Your task to perform on an android device: Open the calendar app, open the side menu, and click the "Day" option Image 0: 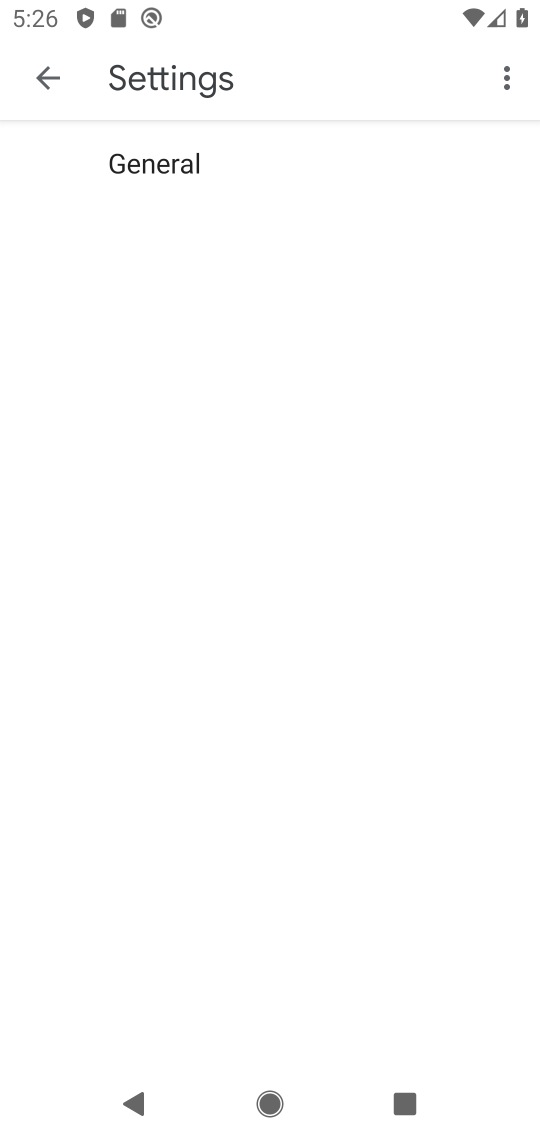
Step 0: press back button
Your task to perform on an android device: Open the calendar app, open the side menu, and click the "Day" option Image 1: 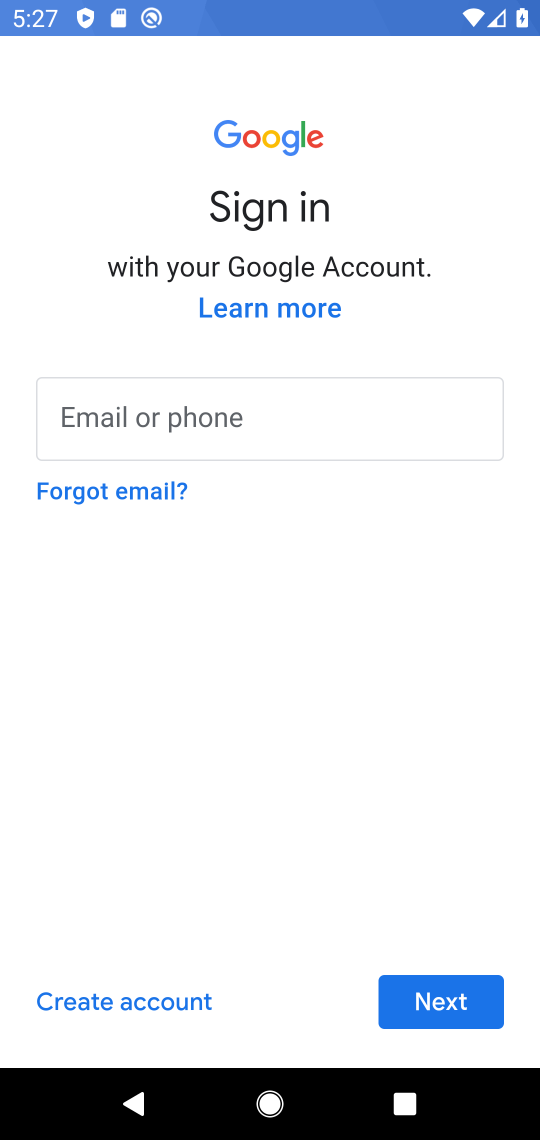
Step 1: press home button
Your task to perform on an android device: Open the calendar app, open the side menu, and click the "Day" option Image 2: 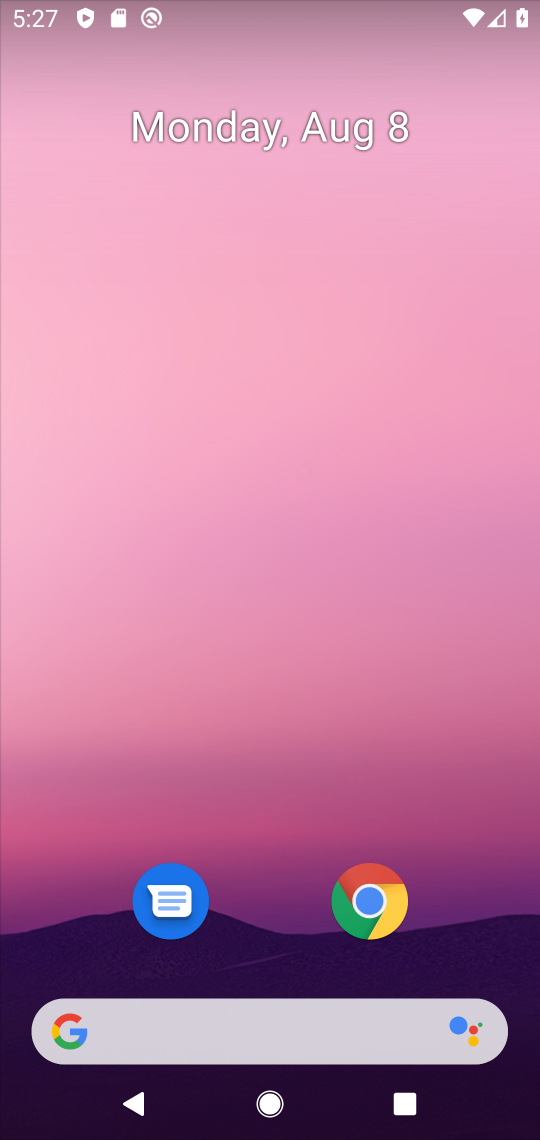
Step 2: drag from (461, 953) to (296, 18)
Your task to perform on an android device: Open the calendar app, open the side menu, and click the "Day" option Image 3: 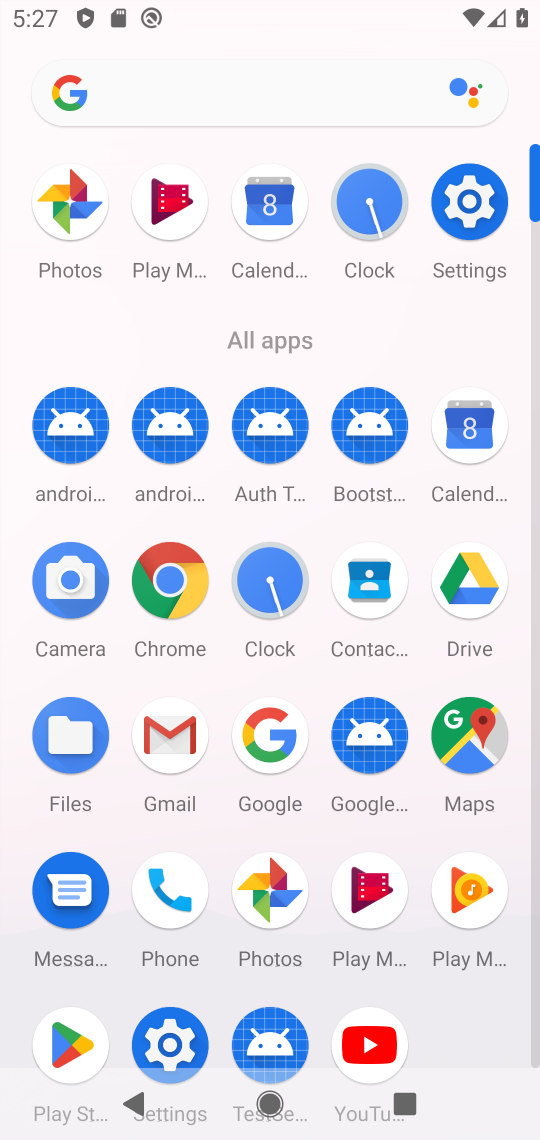
Step 3: click (257, 213)
Your task to perform on an android device: Open the calendar app, open the side menu, and click the "Day" option Image 4: 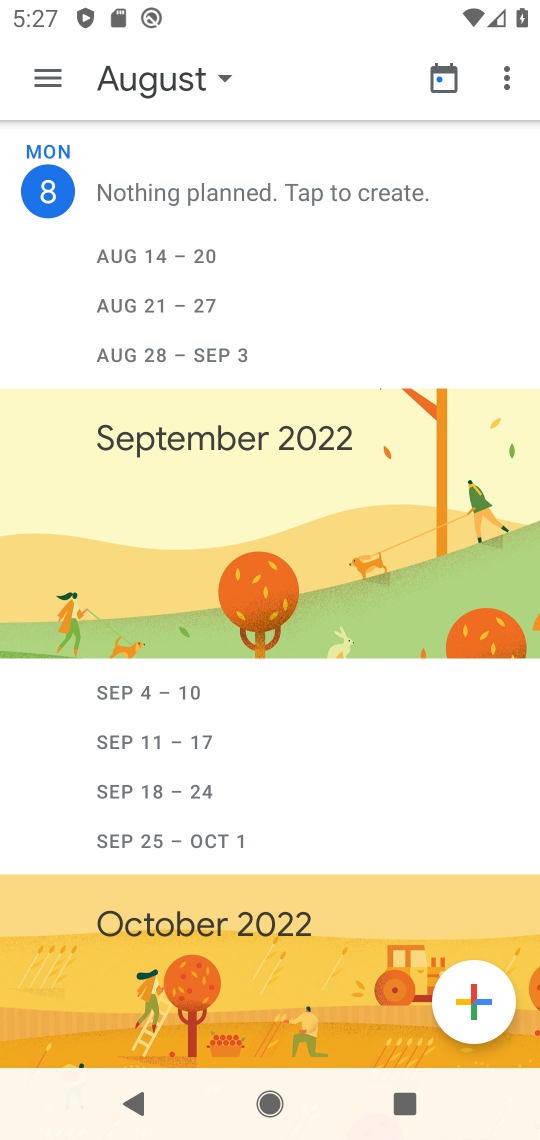
Step 4: click (45, 71)
Your task to perform on an android device: Open the calendar app, open the side menu, and click the "Day" option Image 5: 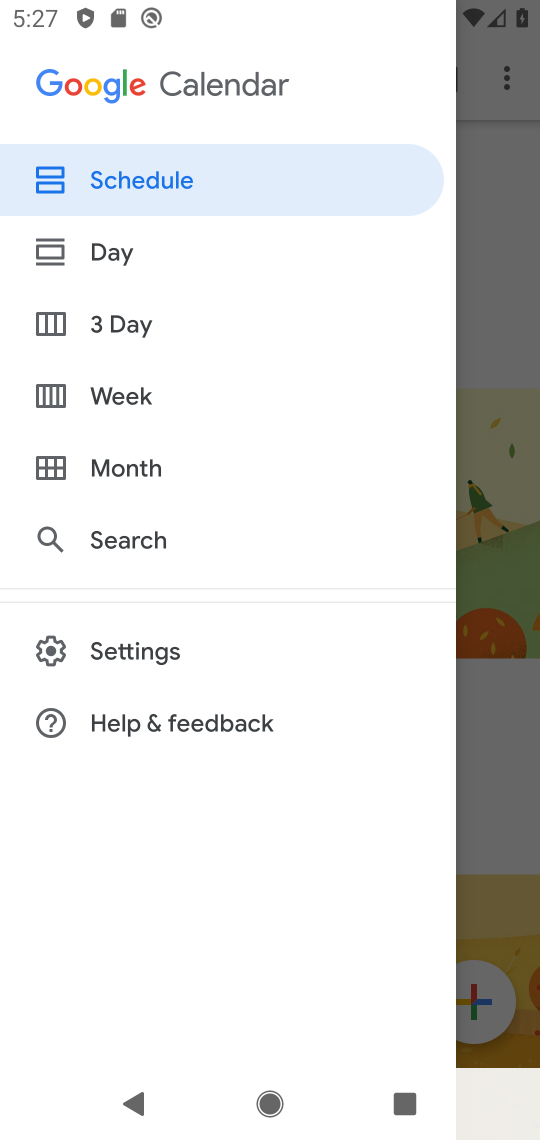
Step 5: click (148, 255)
Your task to perform on an android device: Open the calendar app, open the side menu, and click the "Day" option Image 6: 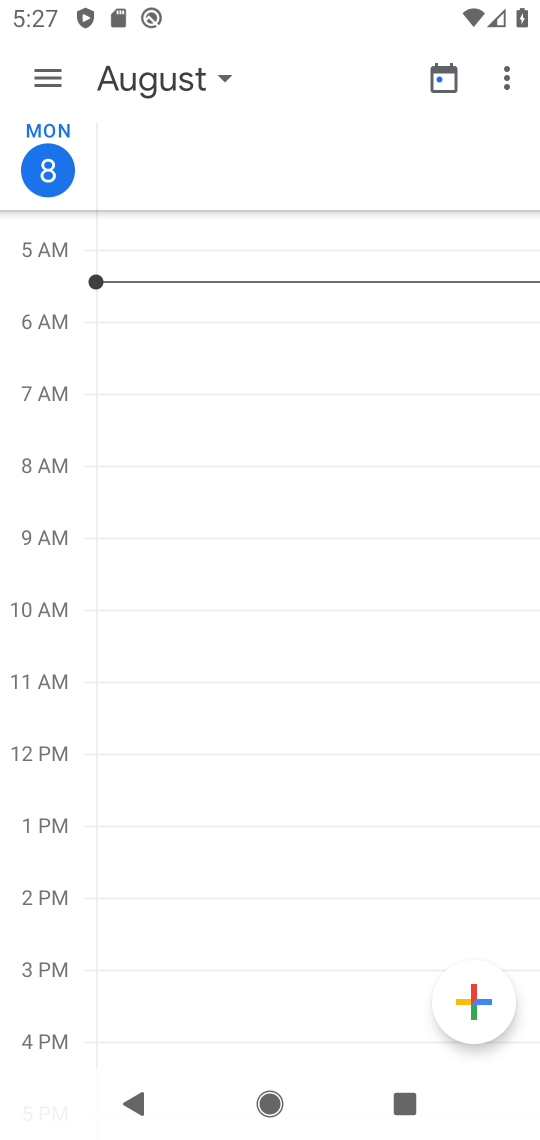
Step 6: task complete